Your task to perform on an android device: Find coffee shops on Maps Image 0: 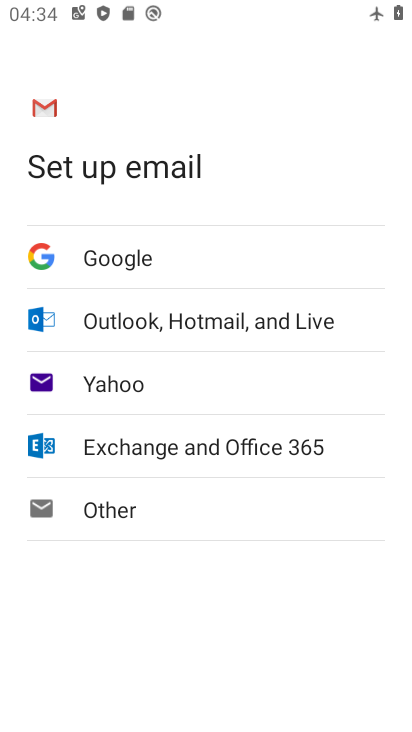
Step 0: press back button
Your task to perform on an android device: Find coffee shops on Maps Image 1: 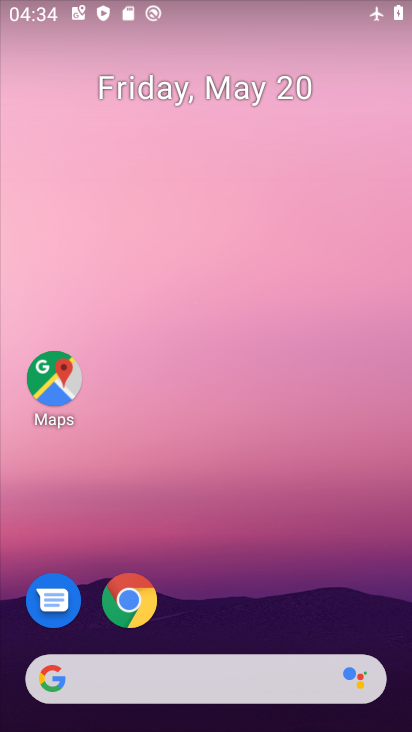
Step 1: drag from (291, 555) to (212, 1)
Your task to perform on an android device: Find coffee shops on Maps Image 2: 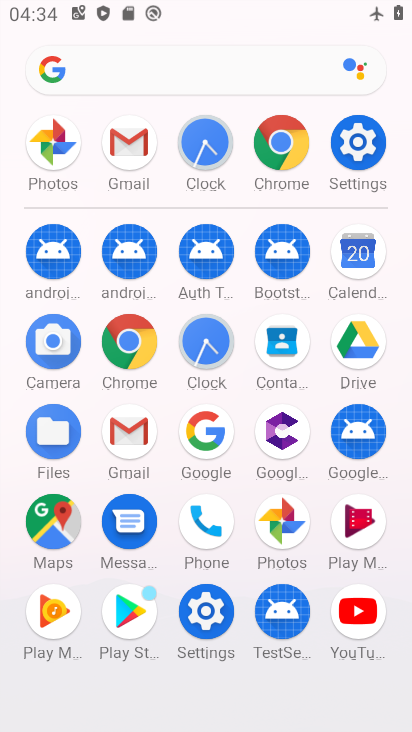
Step 2: drag from (2, 588) to (25, 240)
Your task to perform on an android device: Find coffee shops on Maps Image 3: 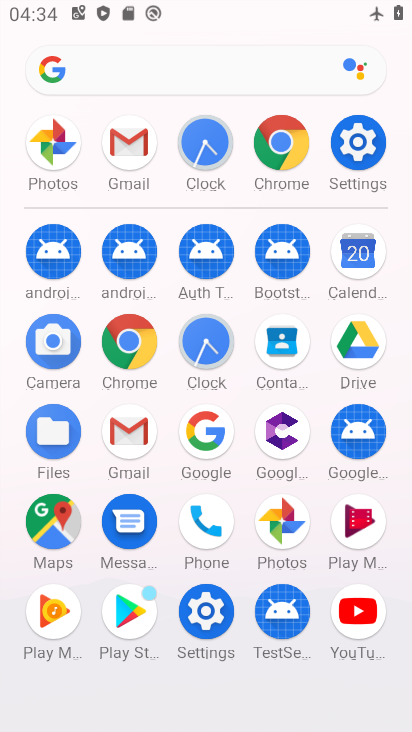
Step 3: click (55, 516)
Your task to perform on an android device: Find coffee shops on Maps Image 4: 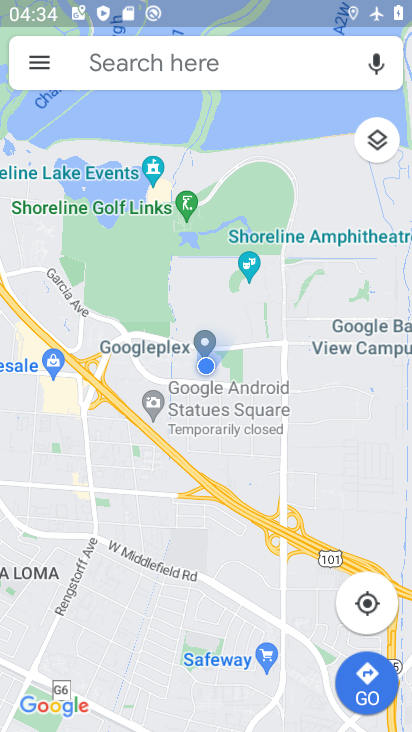
Step 4: click (230, 58)
Your task to perform on an android device: Find coffee shops on Maps Image 5: 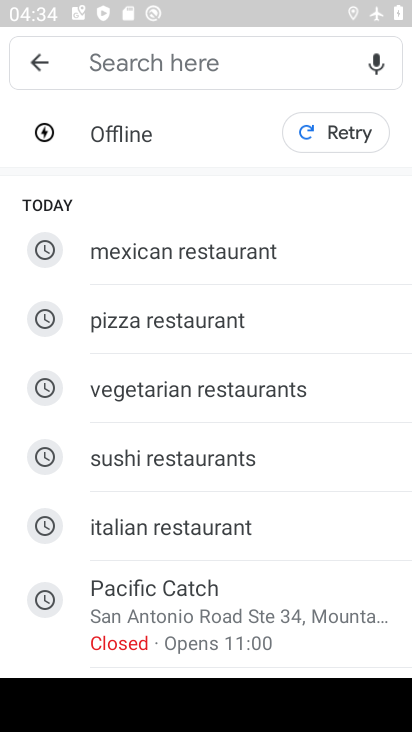
Step 5: type "coffee shops"
Your task to perform on an android device: Find coffee shops on Maps Image 6: 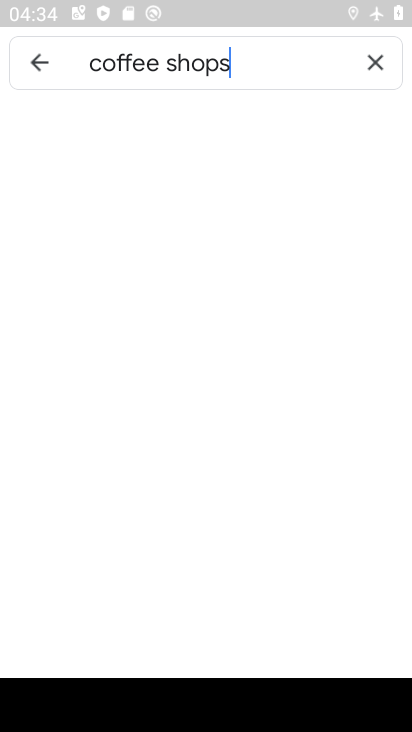
Step 6: type ""
Your task to perform on an android device: Find coffee shops on Maps Image 7: 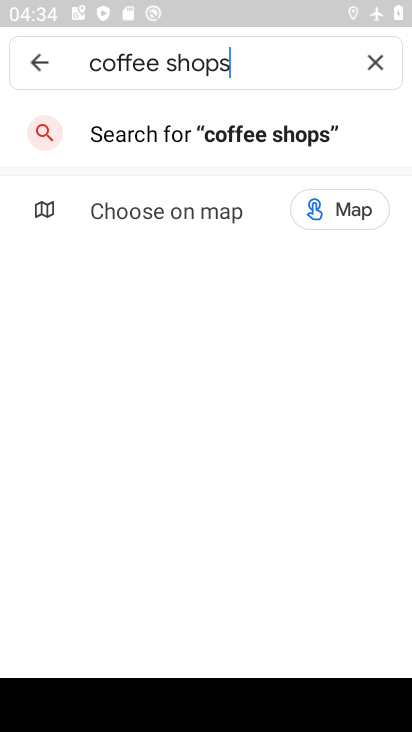
Step 7: click (184, 141)
Your task to perform on an android device: Find coffee shops on Maps Image 8: 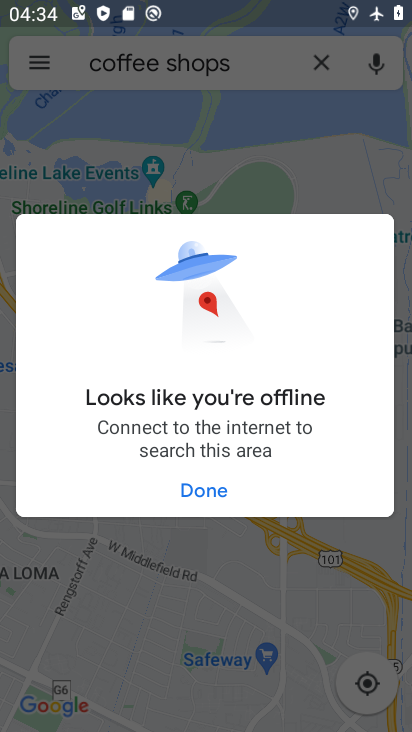
Step 8: task complete